Your task to perform on an android device: toggle show notifications on the lock screen Image 0: 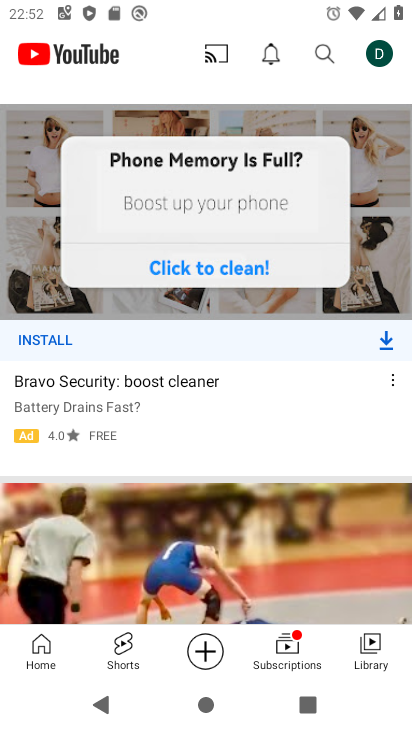
Step 0: press home button
Your task to perform on an android device: toggle show notifications on the lock screen Image 1: 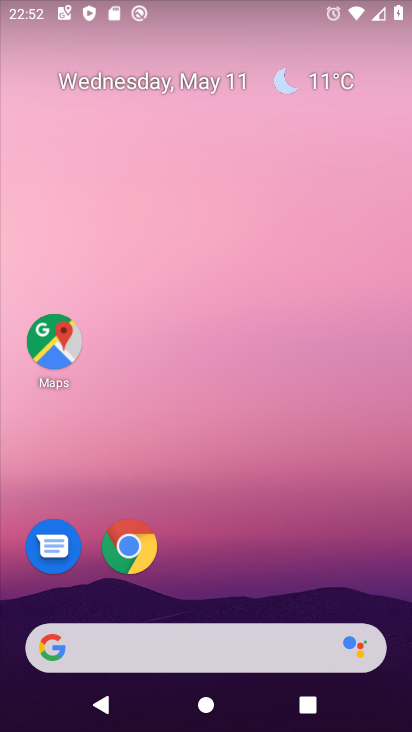
Step 1: drag from (403, 636) to (274, 122)
Your task to perform on an android device: toggle show notifications on the lock screen Image 2: 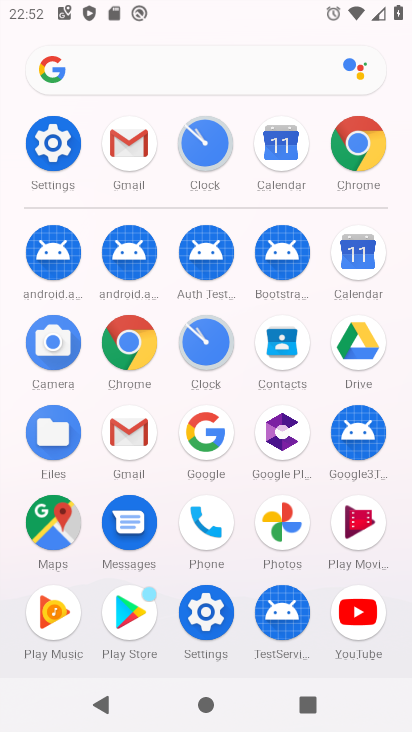
Step 2: click (205, 616)
Your task to perform on an android device: toggle show notifications on the lock screen Image 3: 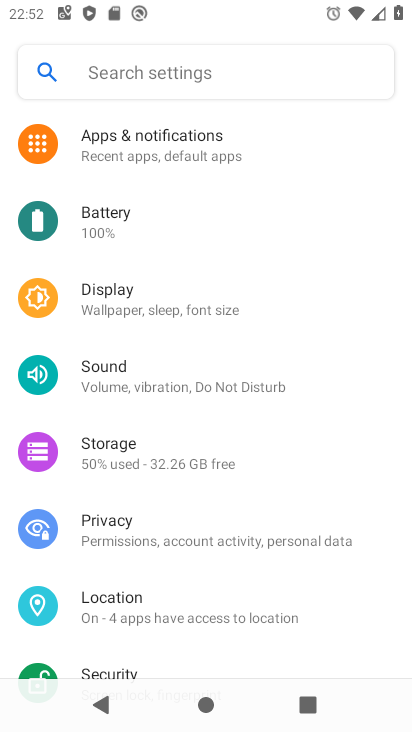
Step 3: click (150, 140)
Your task to perform on an android device: toggle show notifications on the lock screen Image 4: 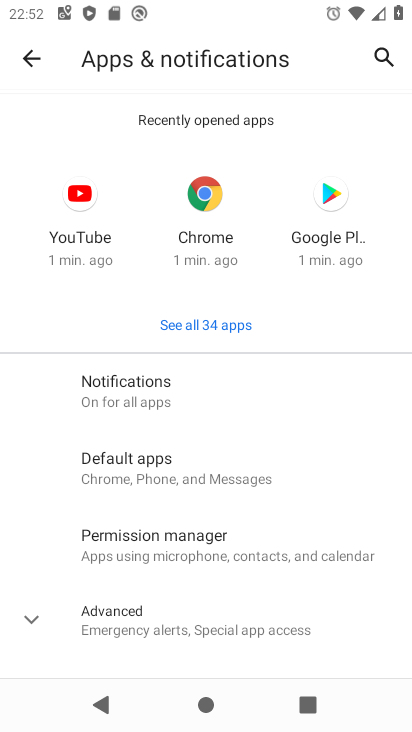
Step 4: click (140, 384)
Your task to perform on an android device: toggle show notifications on the lock screen Image 5: 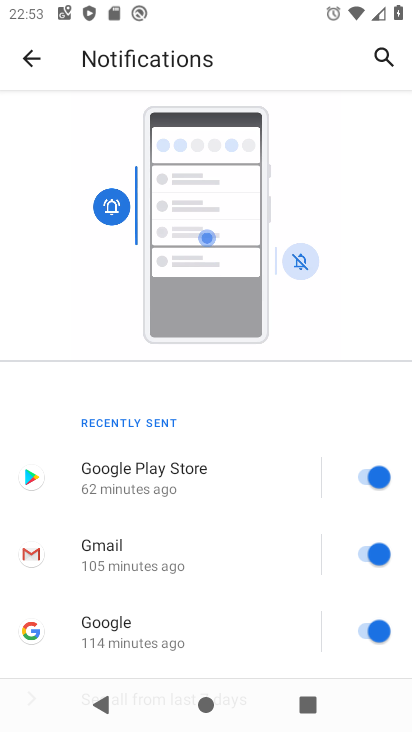
Step 5: drag from (310, 647) to (247, 189)
Your task to perform on an android device: toggle show notifications on the lock screen Image 6: 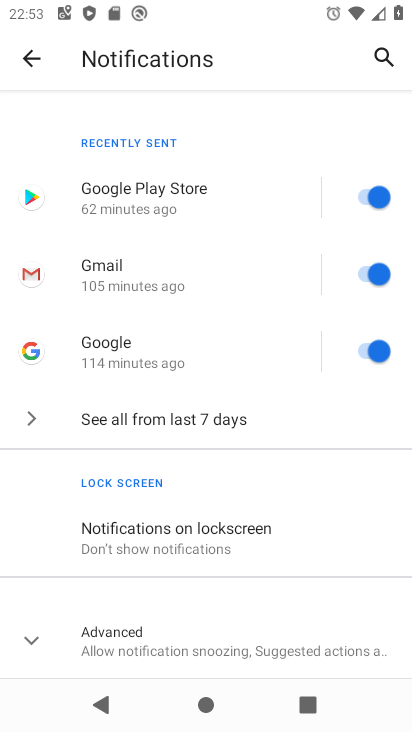
Step 6: click (160, 529)
Your task to perform on an android device: toggle show notifications on the lock screen Image 7: 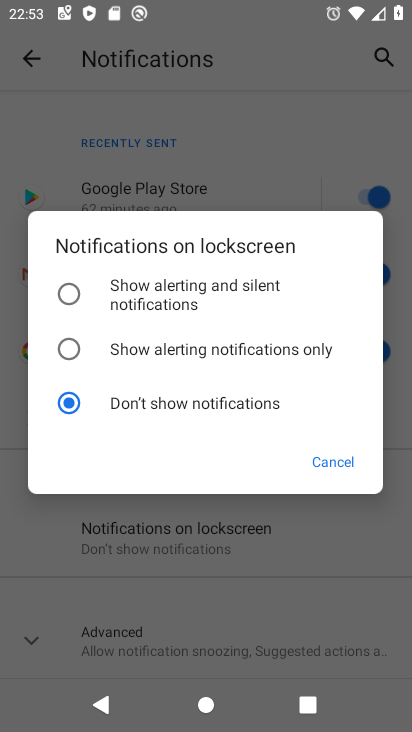
Step 7: click (76, 285)
Your task to perform on an android device: toggle show notifications on the lock screen Image 8: 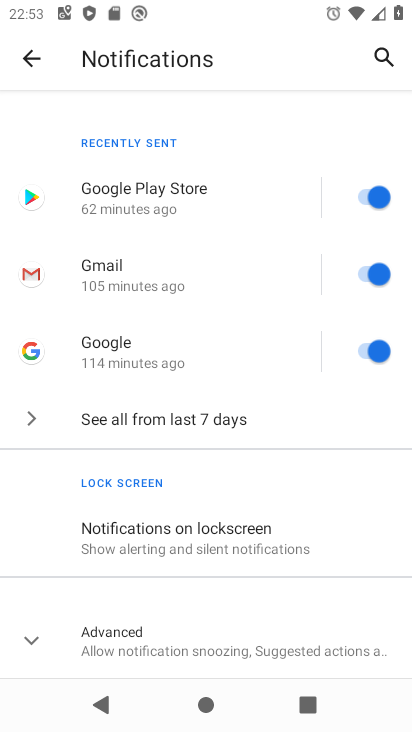
Step 8: task complete